Your task to perform on an android device: Open Wikipedia Image 0: 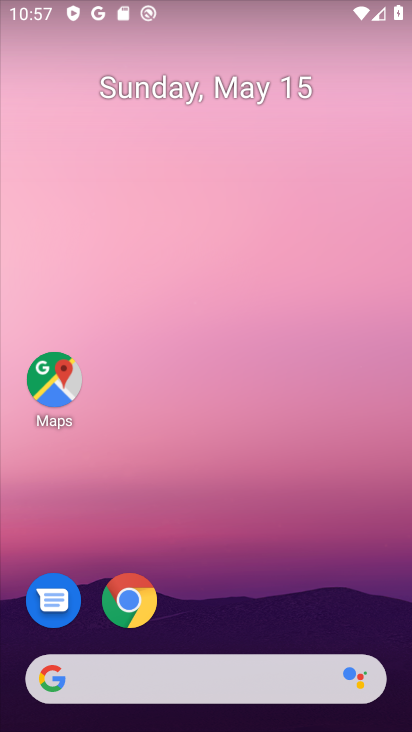
Step 0: click (133, 618)
Your task to perform on an android device: Open Wikipedia Image 1: 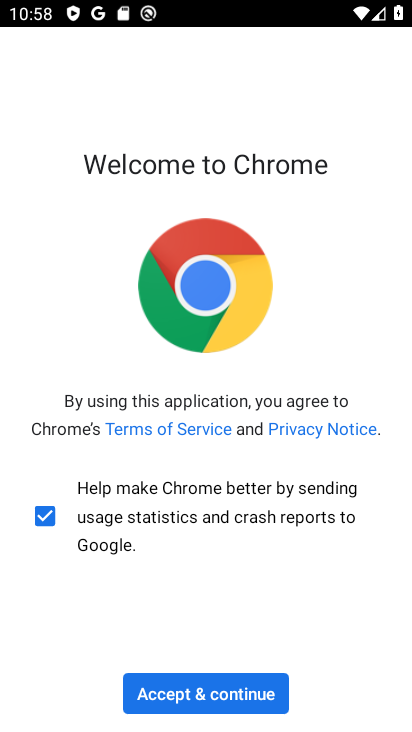
Step 1: click (193, 687)
Your task to perform on an android device: Open Wikipedia Image 2: 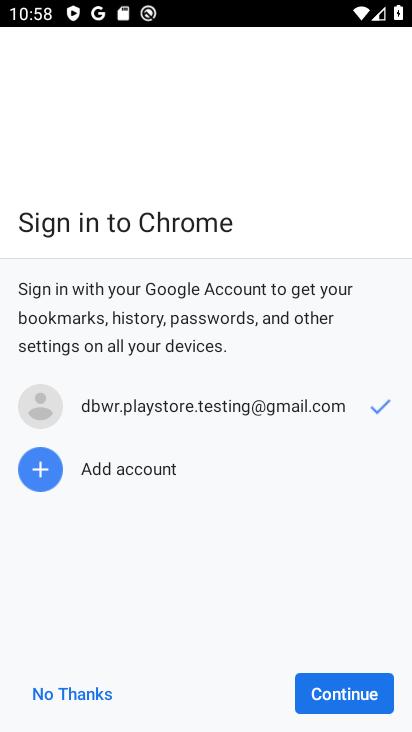
Step 2: click (324, 704)
Your task to perform on an android device: Open Wikipedia Image 3: 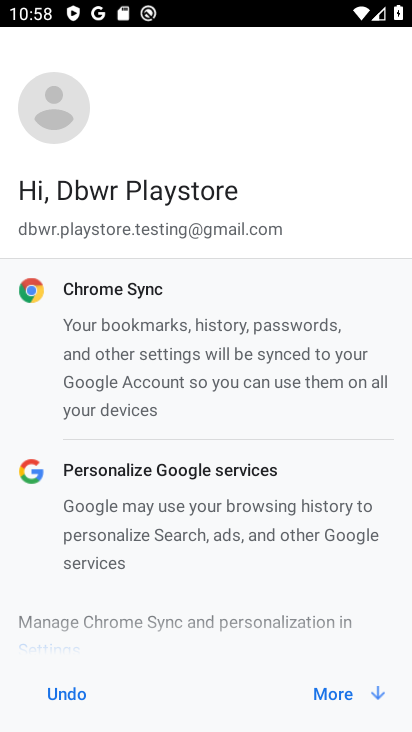
Step 3: click (323, 687)
Your task to perform on an android device: Open Wikipedia Image 4: 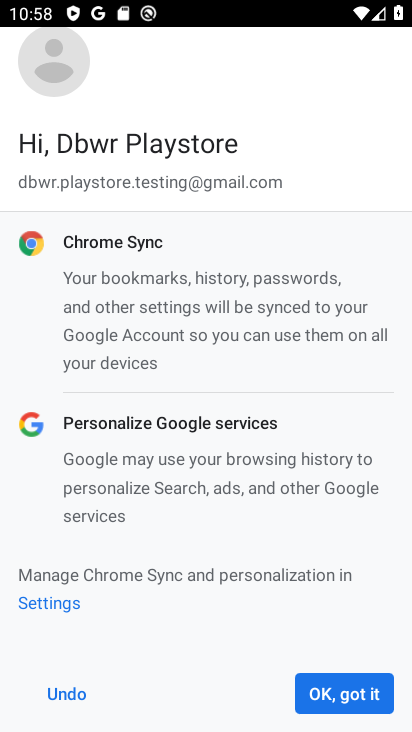
Step 4: click (382, 692)
Your task to perform on an android device: Open Wikipedia Image 5: 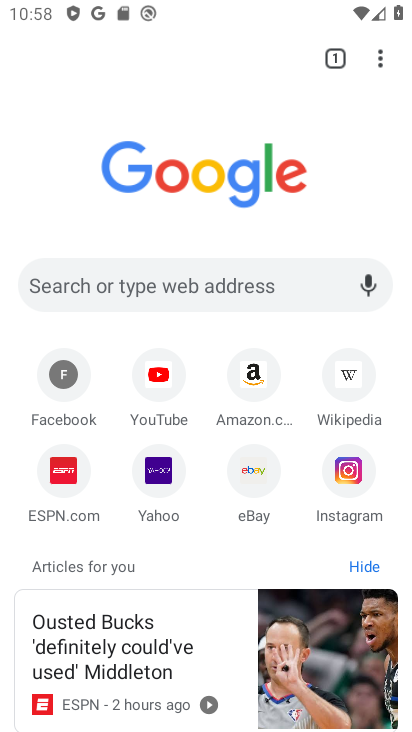
Step 5: click (341, 399)
Your task to perform on an android device: Open Wikipedia Image 6: 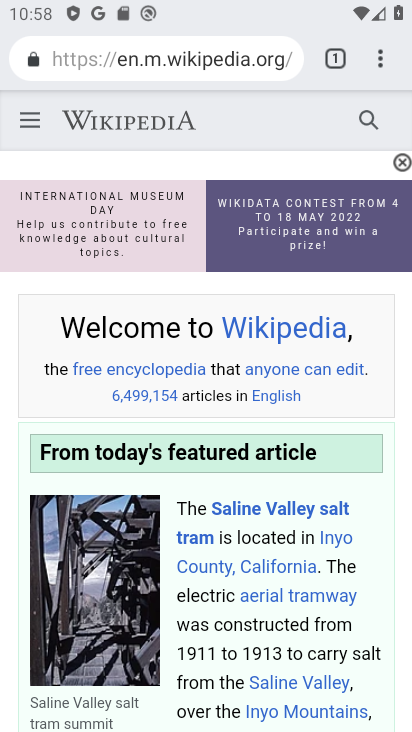
Step 6: task complete